Your task to perform on an android device: see creations saved in the google photos Image 0: 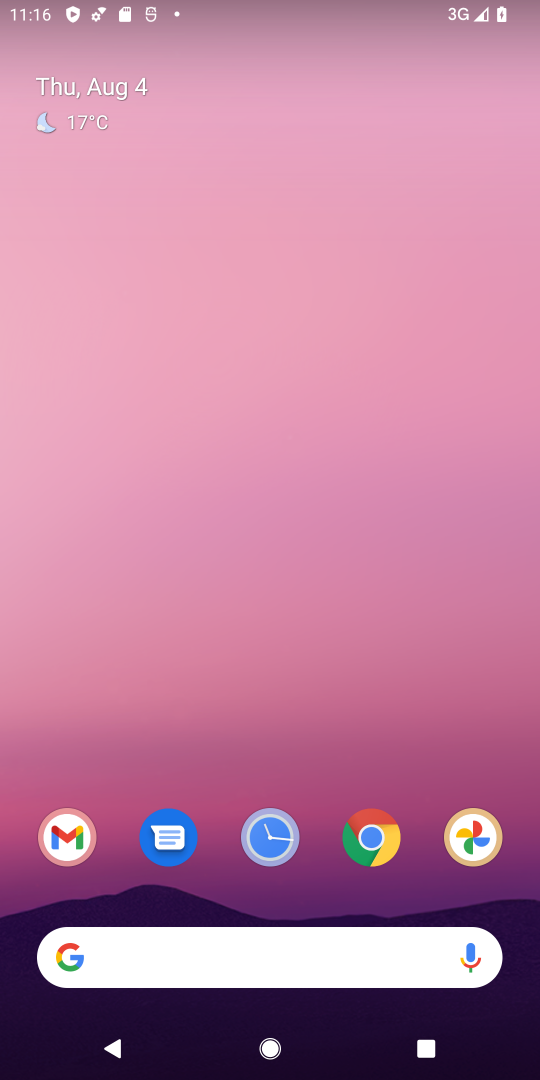
Step 0: drag from (433, 894) to (199, 0)
Your task to perform on an android device: see creations saved in the google photos Image 1: 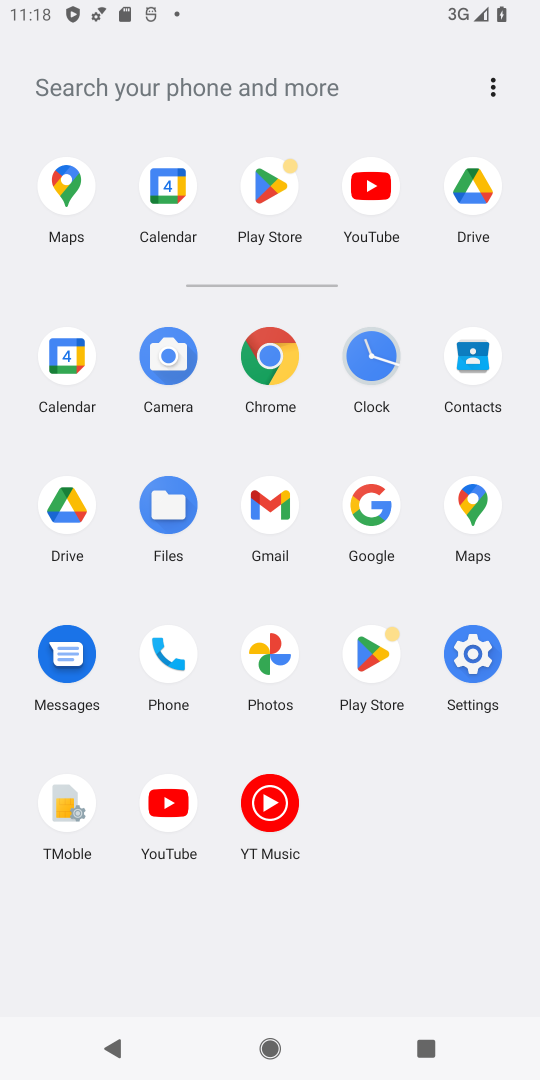
Step 1: click (249, 647)
Your task to perform on an android device: see creations saved in the google photos Image 2: 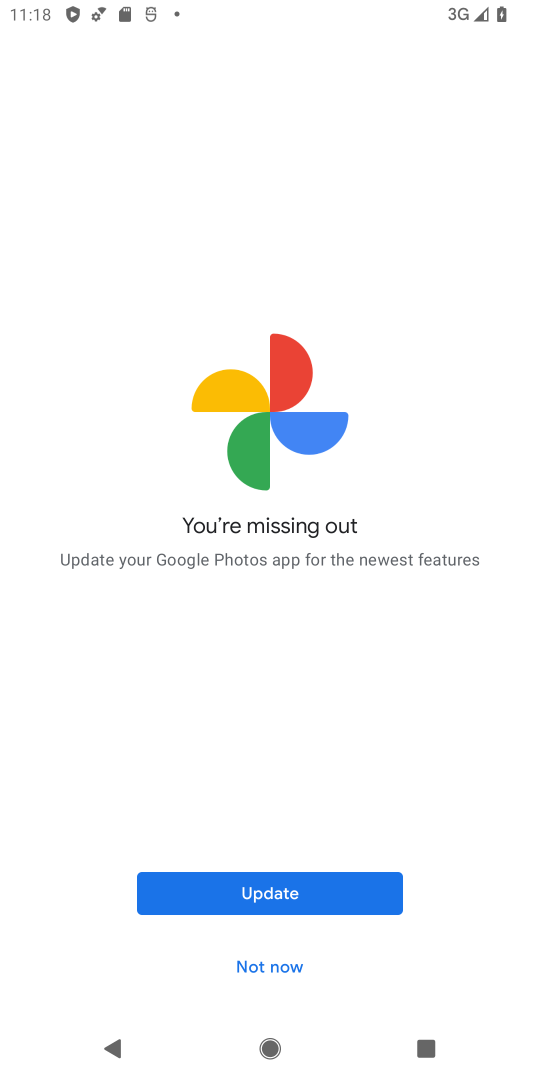
Step 2: click (198, 894)
Your task to perform on an android device: see creations saved in the google photos Image 3: 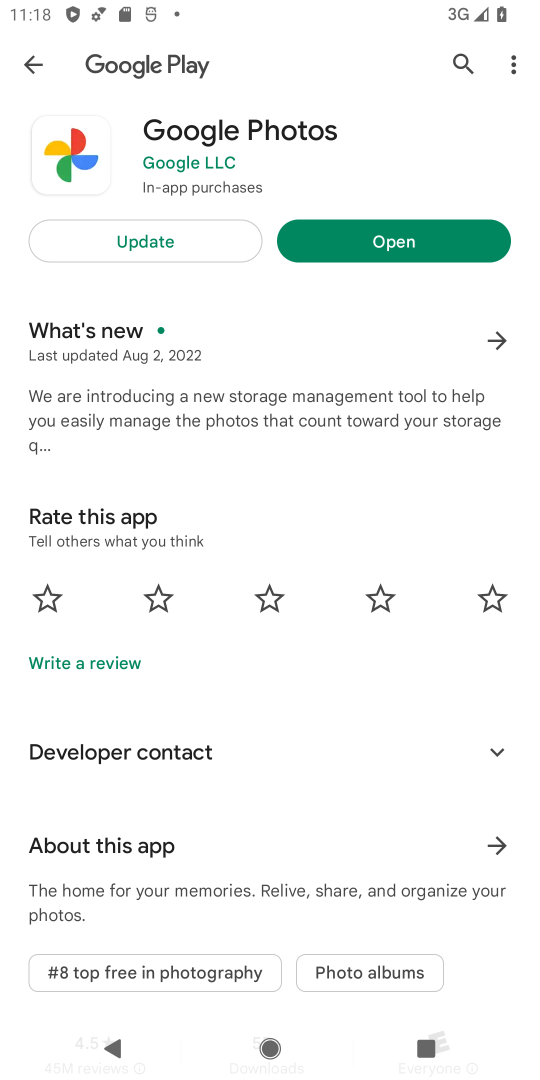
Step 3: click (127, 231)
Your task to perform on an android device: see creations saved in the google photos Image 4: 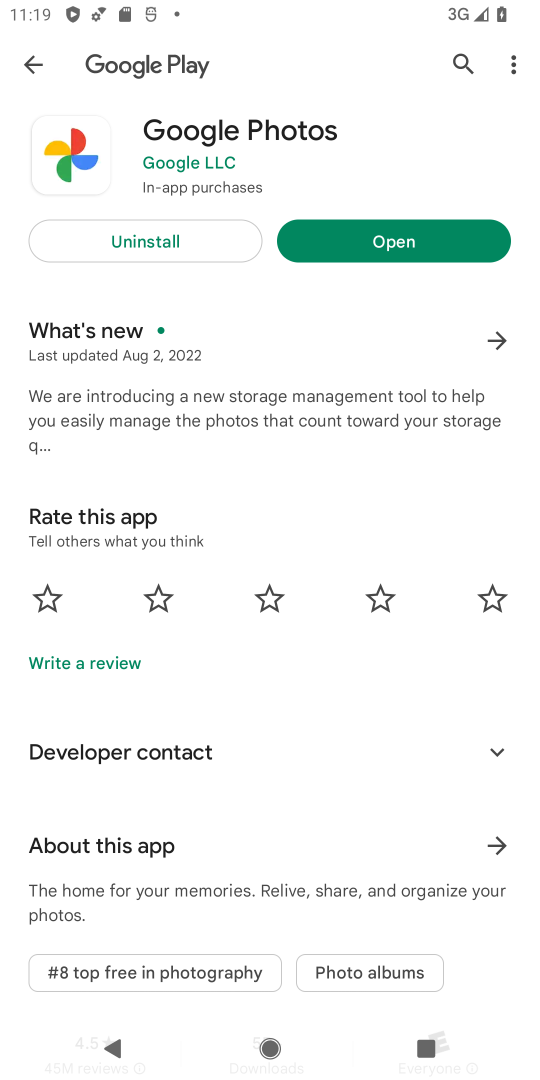
Step 4: click (393, 258)
Your task to perform on an android device: see creations saved in the google photos Image 5: 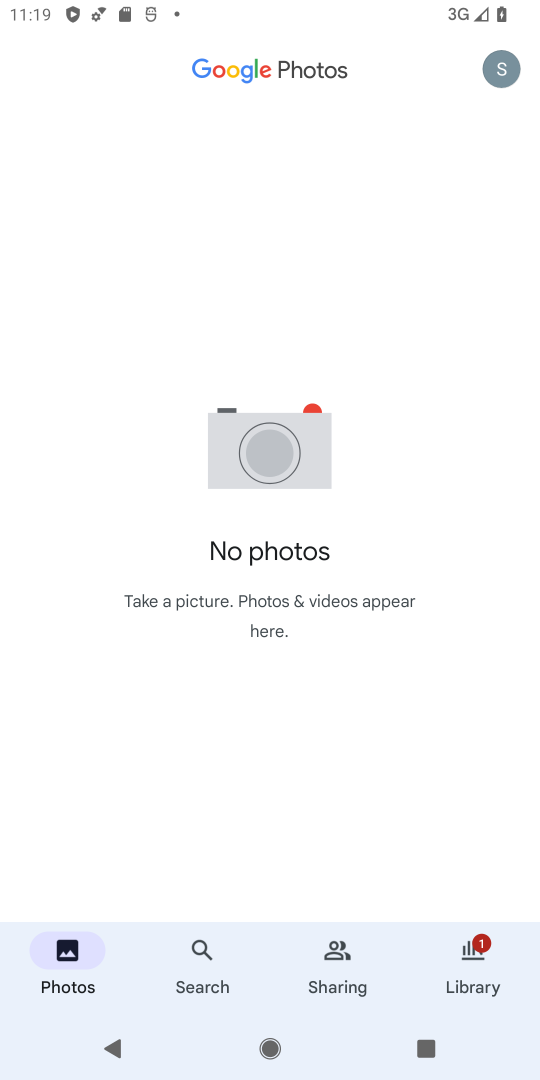
Step 5: click (187, 940)
Your task to perform on an android device: see creations saved in the google photos Image 6: 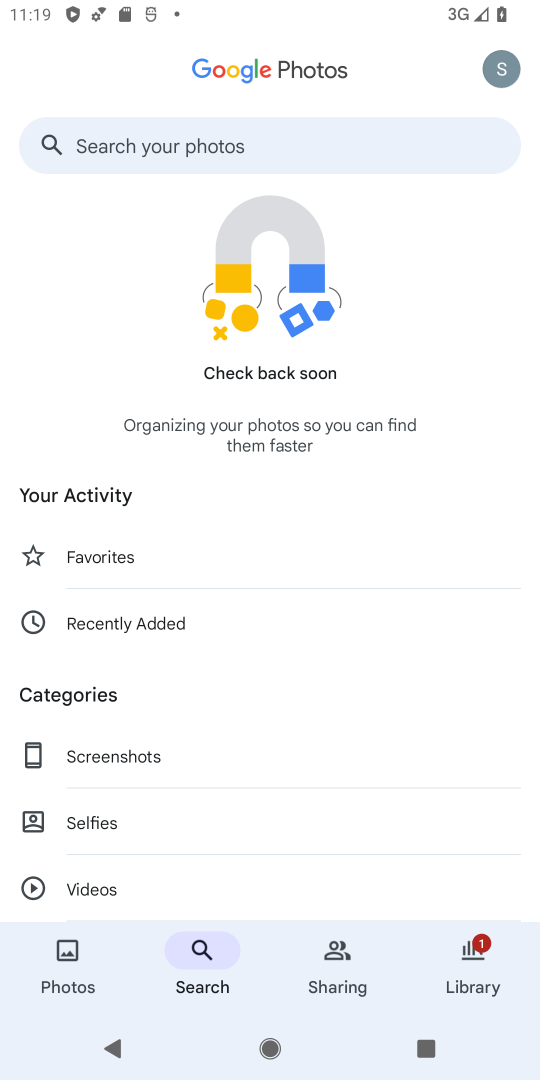
Step 6: drag from (172, 826) to (119, 168)
Your task to perform on an android device: see creations saved in the google photos Image 7: 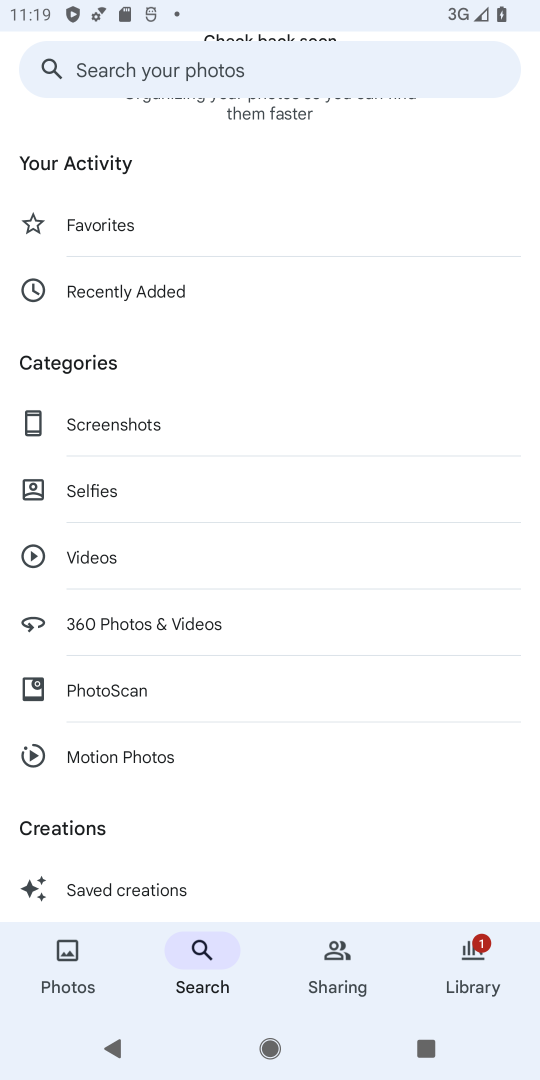
Step 7: click (111, 884)
Your task to perform on an android device: see creations saved in the google photos Image 8: 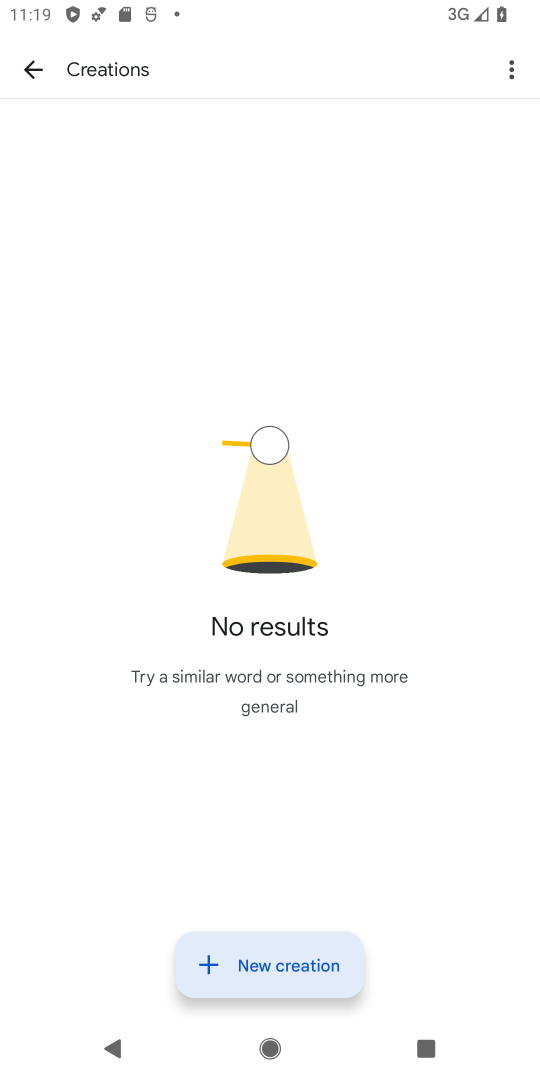
Step 8: task complete